Your task to perform on an android device: find which apps use the phone's location Image 0: 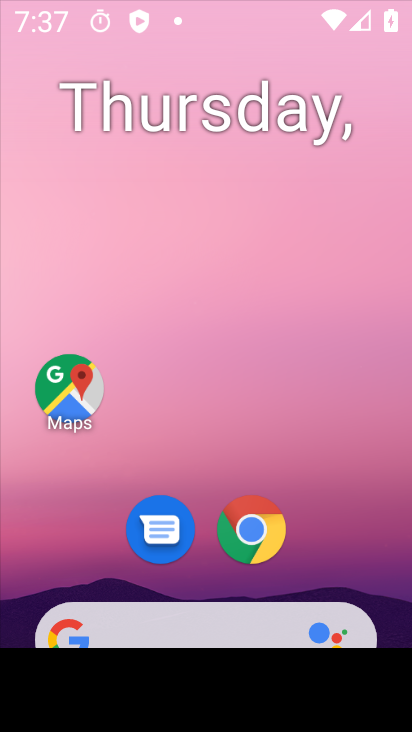
Step 0: click (50, 382)
Your task to perform on an android device: find which apps use the phone's location Image 1: 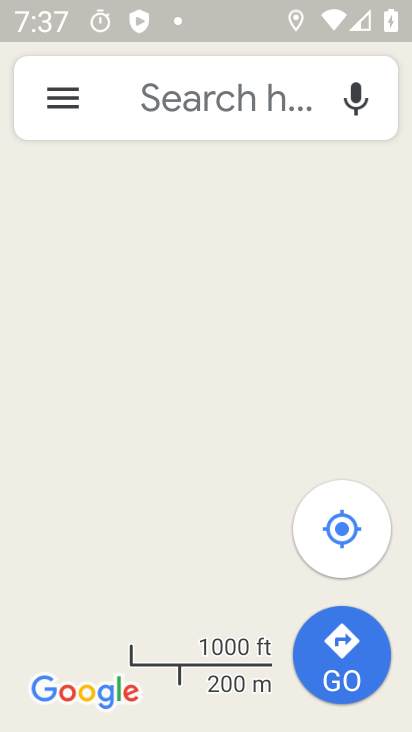
Step 1: click (167, 105)
Your task to perform on an android device: find which apps use the phone's location Image 2: 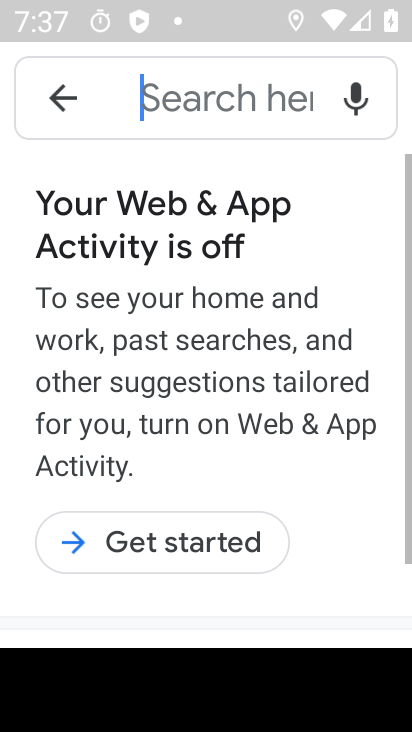
Step 2: press home button
Your task to perform on an android device: find which apps use the phone's location Image 3: 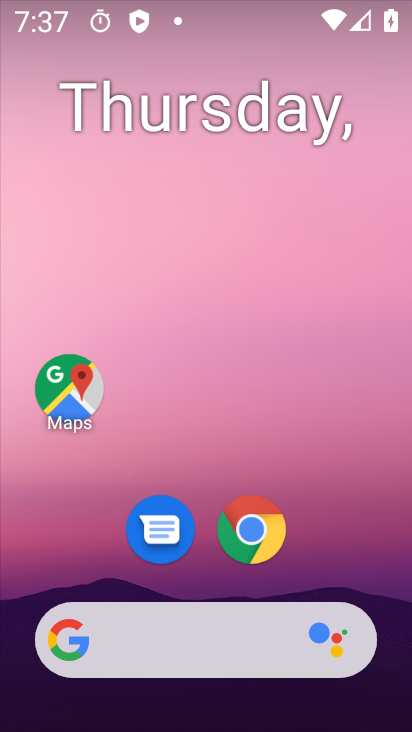
Step 3: drag from (393, 708) to (376, 254)
Your task to perform on an android device: find which apps use the phone's location Image 4: 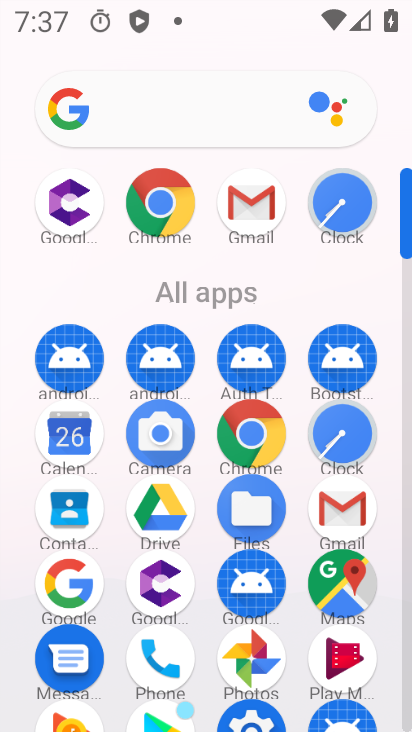
Step 4: click (260, 709)
Your task to perform on an android device: find which apps use the phone's location Image 5: 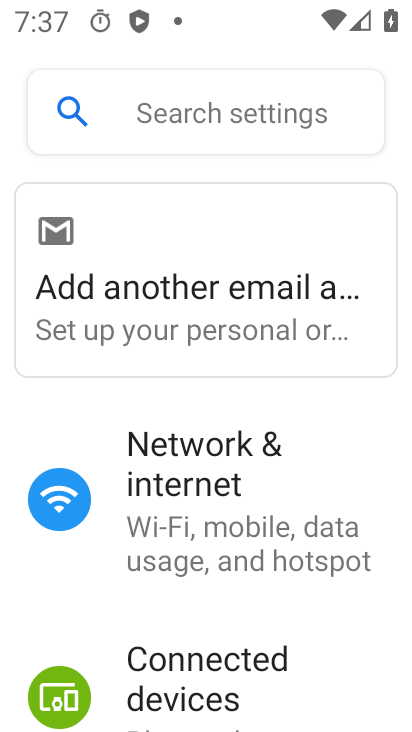
Step 5: drag from (321, 711) to (326, 359)
Your task to perform on an android device: find which apps use the phone's location Image 6: 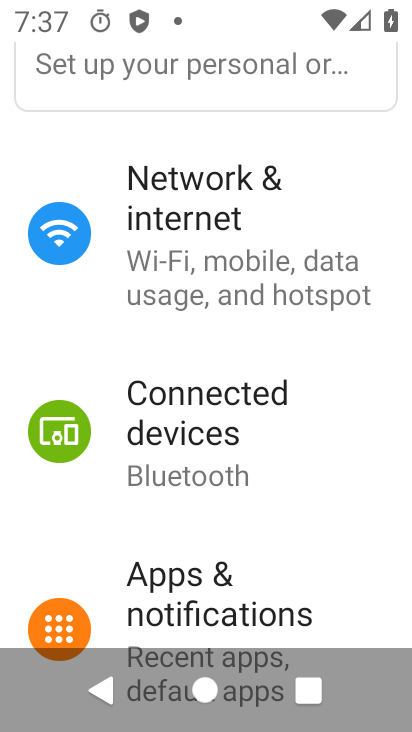
Step 6: drag from (365, 631) to (334, 293)
Your task to perform on an android device: find which apps use the phone's location Image 7: 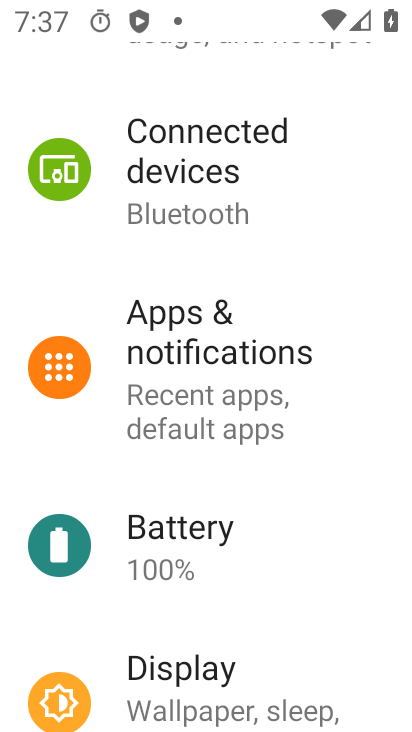
Step 7: drag from (362, 715) to (389, 38)
Your task to perform on an android device: find which apps use the phone's location Image 8: 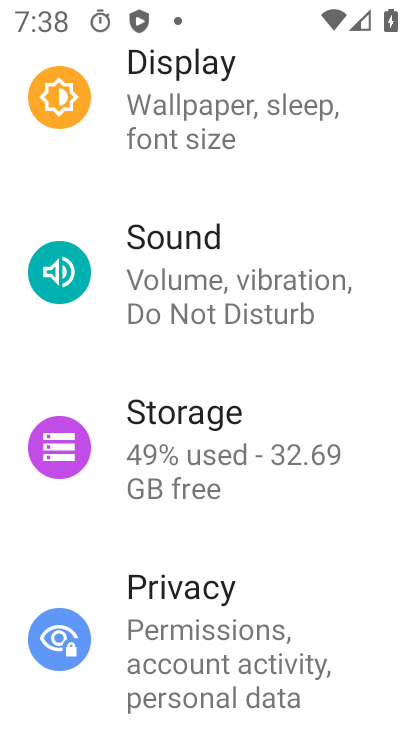
Step 8: drag from (349, 611) to (345, 46)
Your task to perform on an android device: find which apps use the phone's location Image 9: 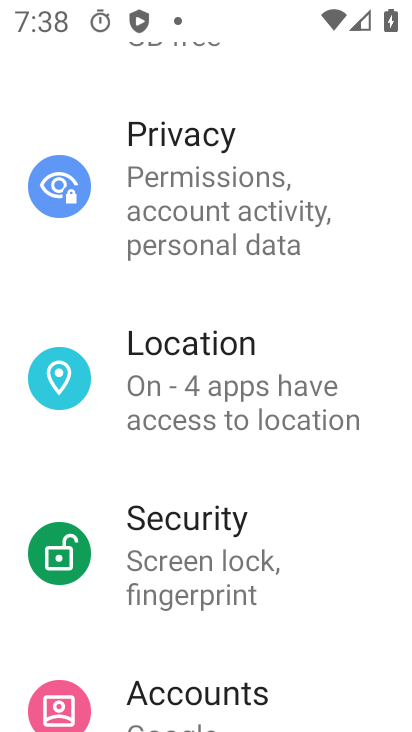
Step 9: click (166, 383)
Your task to perform on an android device: find which apps use the phone's location Image 10: 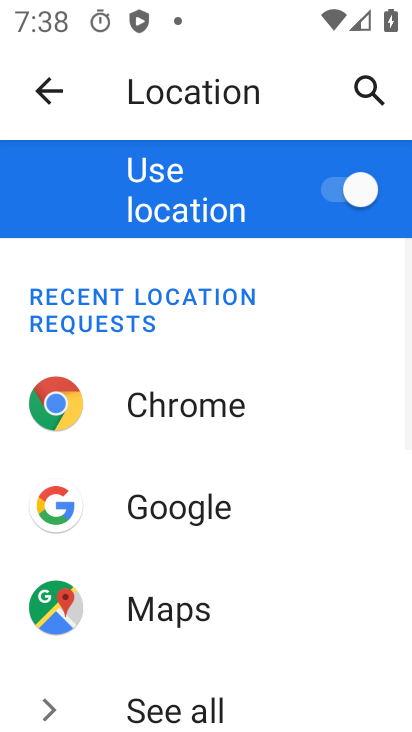
Step 10: drag from (325, 703) to (346, 317)
Your task to perform on an android device: find which apps use the phone's location Image 11: 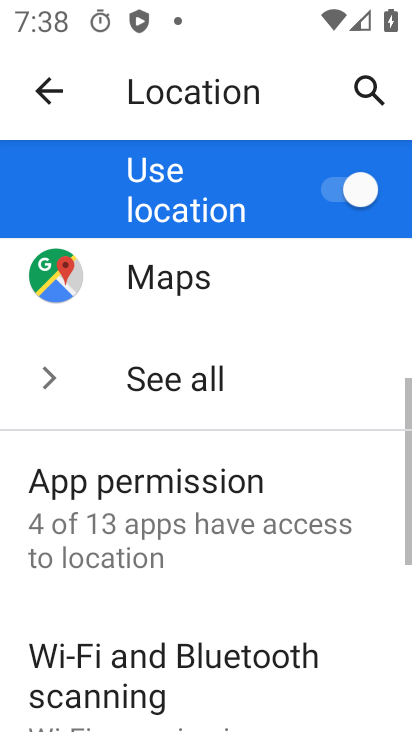
Step 11: click (79, 482)
Your task to perform on an android device: find which apps use the phone's location Image 12: 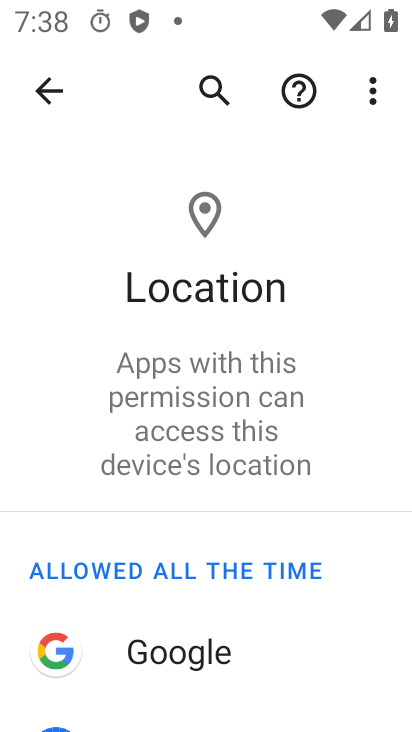
Step 12: task complete